Your task to perform on an android device: make emails show in primary in the gmail app Image 0: 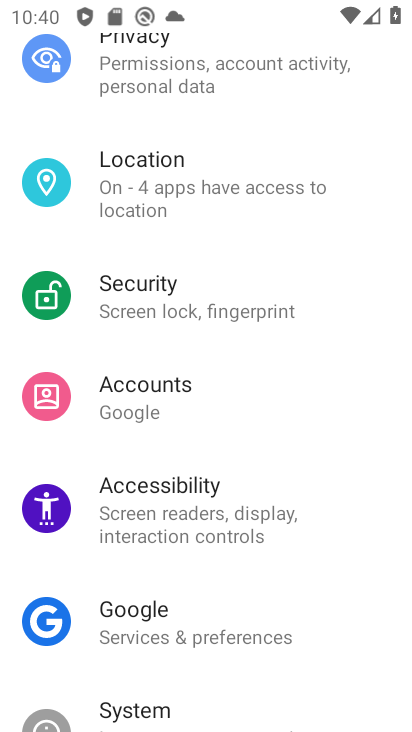
Step 0: press home button
Your task to perform on an android device: make emails show in primary in the gmail app Image 1: 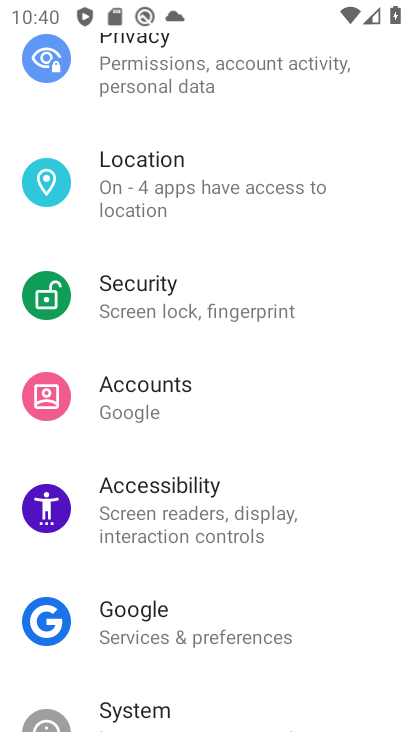
Step 1: press home button
Your task to perform on an android device: make emails show in primary in the gmail app Image 2: 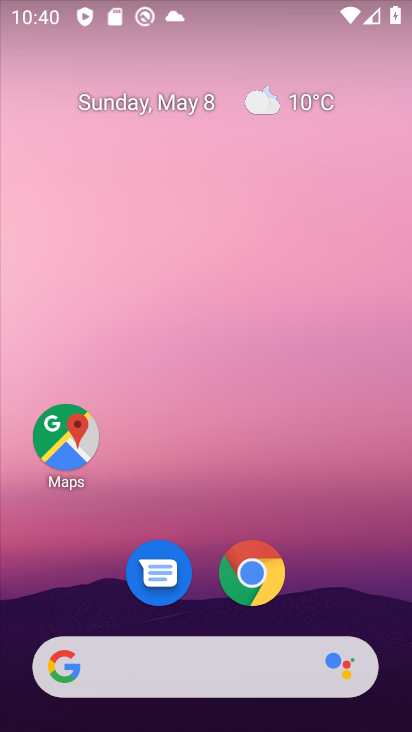
Step 2: press home button
Your task to perform on an android device: make emails show in primary in the gmail app Image 3: 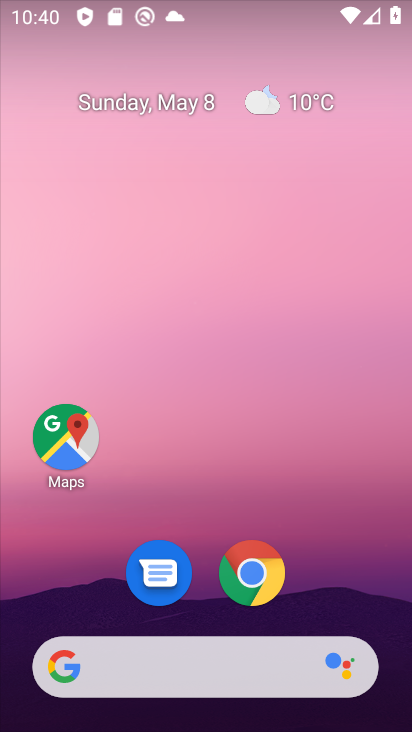
Step 3: drag from (348, 562) to (312, 147)
Your task to perform on an android device: make emails show in primary in the gmail app Image 4: 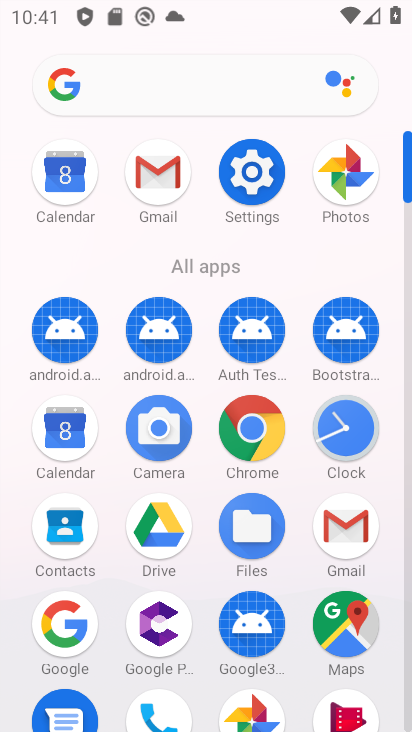
Step 4: click (336, 541)
Your task to perform on an android device: make emails show in primary in the gmail app Image 5: 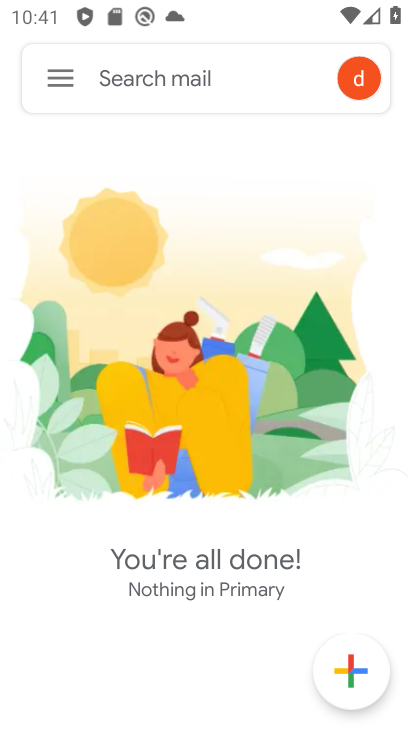
Step 5: click (64, 72)
Your task to perform on an android device: make emails show in primary in the gmail app Image 6: 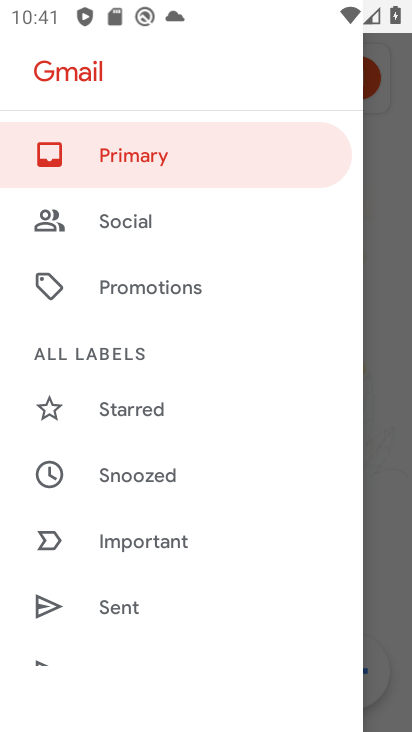
Step 6: click (258, 149)
Your task to perform on an android device: make emails show in primary in the gmail app Image 7: 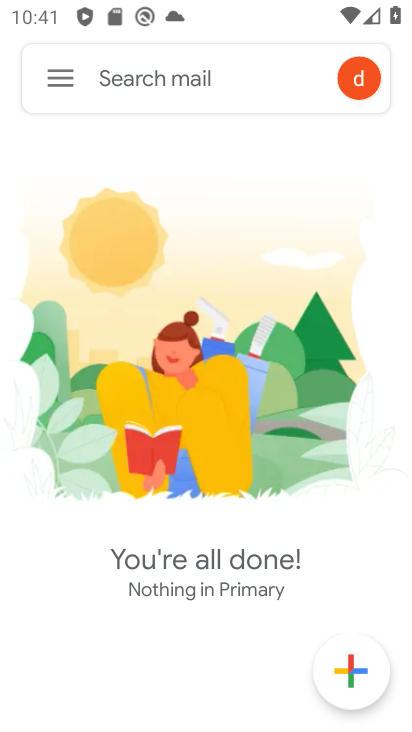
Step 7: task complete